Your task to perform on an android device: Go to display settings Image 0: 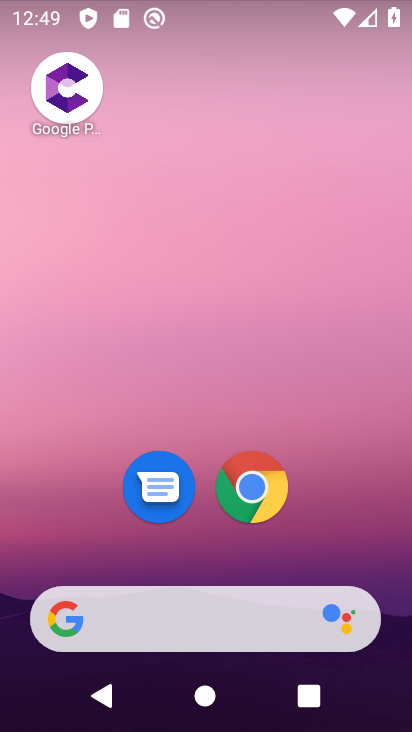
Step 0: drag from (323, 495) to (370, 89)
Your task to perform on an android device: Go to display settings Image 1: 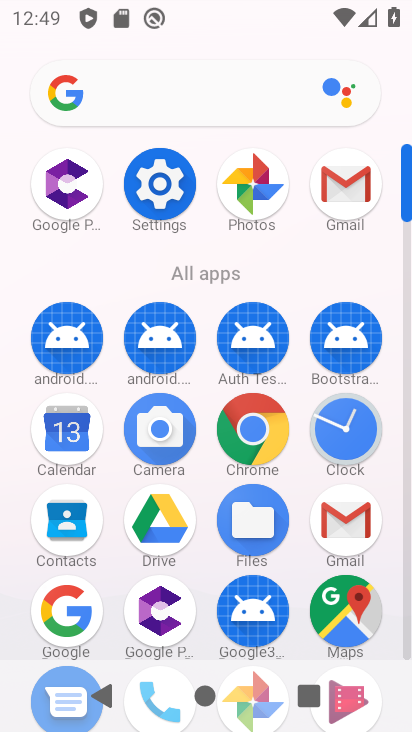
Step 1: click (184, 199)
Your task to perform on an android device: Go to display settings Image 2: 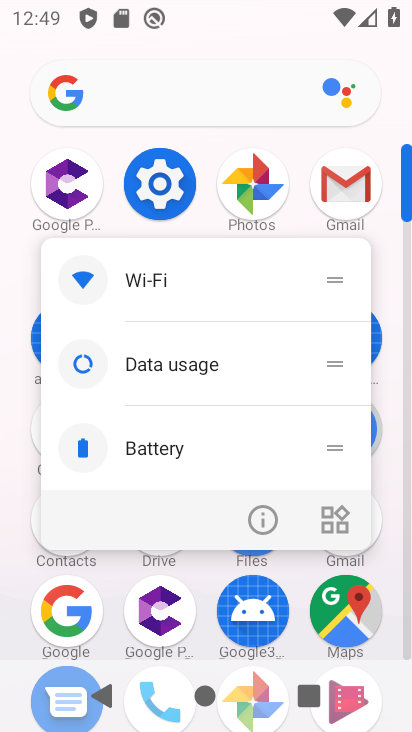
Step 2: click (153, 189)
Your task to perform on an android device: Go to display settings Image 3: 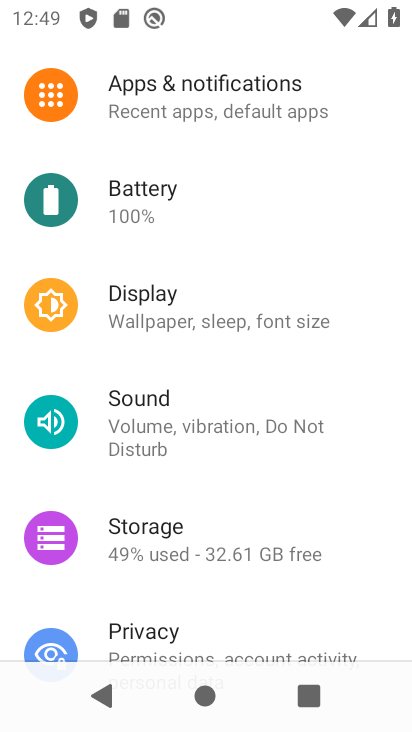
Step 3: click (207, 315)
Your task to perform on an android device: Go to display settings Image 4: 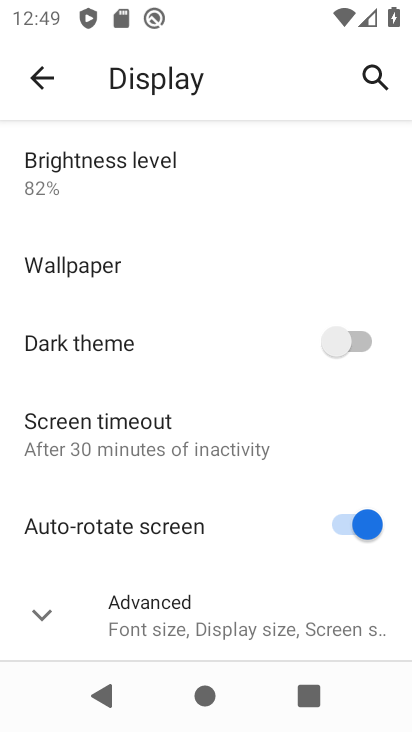
Step 4: drag from (185, 478) to (219, 171)
Your task to perform on an android device: Go to display settings Image 5: 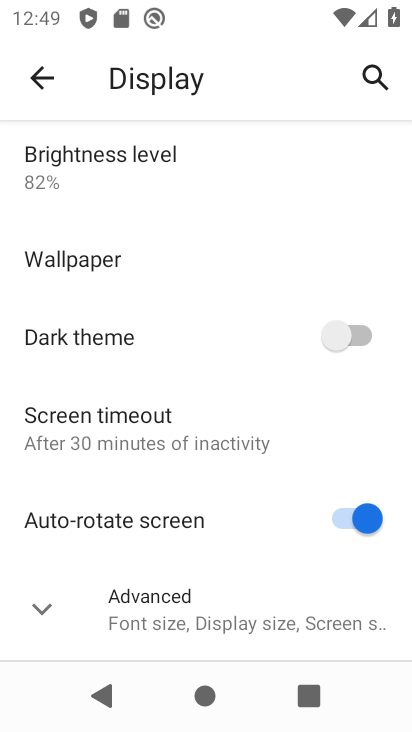
Step 5: click (49, 595)
Your task to perform on an android device: Go to display settings Image 6: 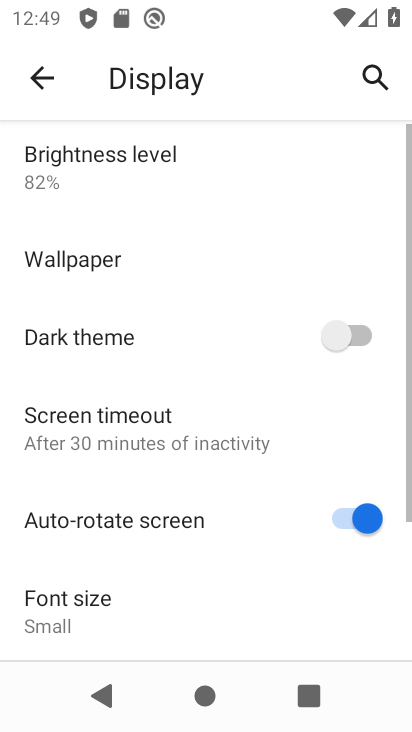
Step 6: task complete